Your task to perform on an android device: Search for seafood restaurants on Google Maps Image 0: 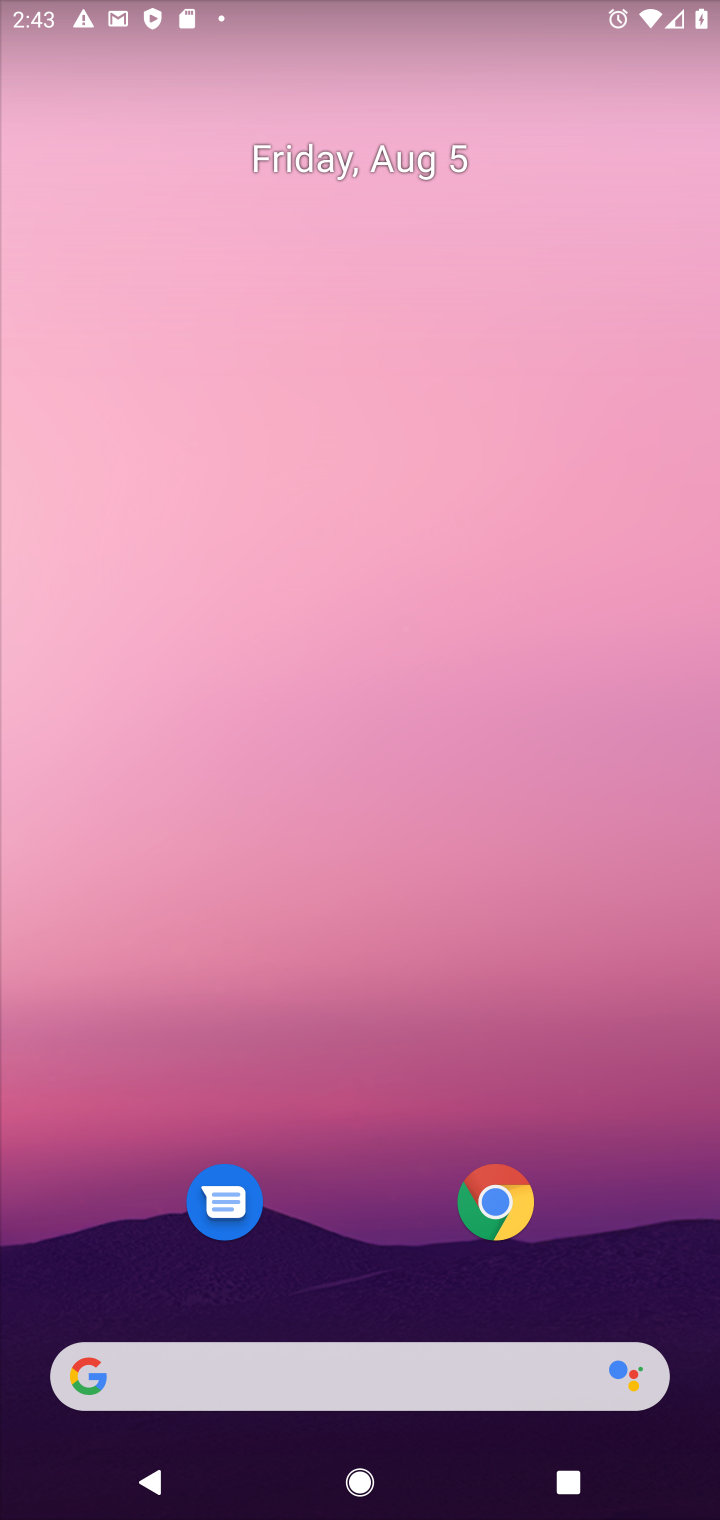
Step 0: drag from (342, 1212) to (318, 9)
Your task to perform on an android device: Search for seafood restaurants on Google Maps Image 1: 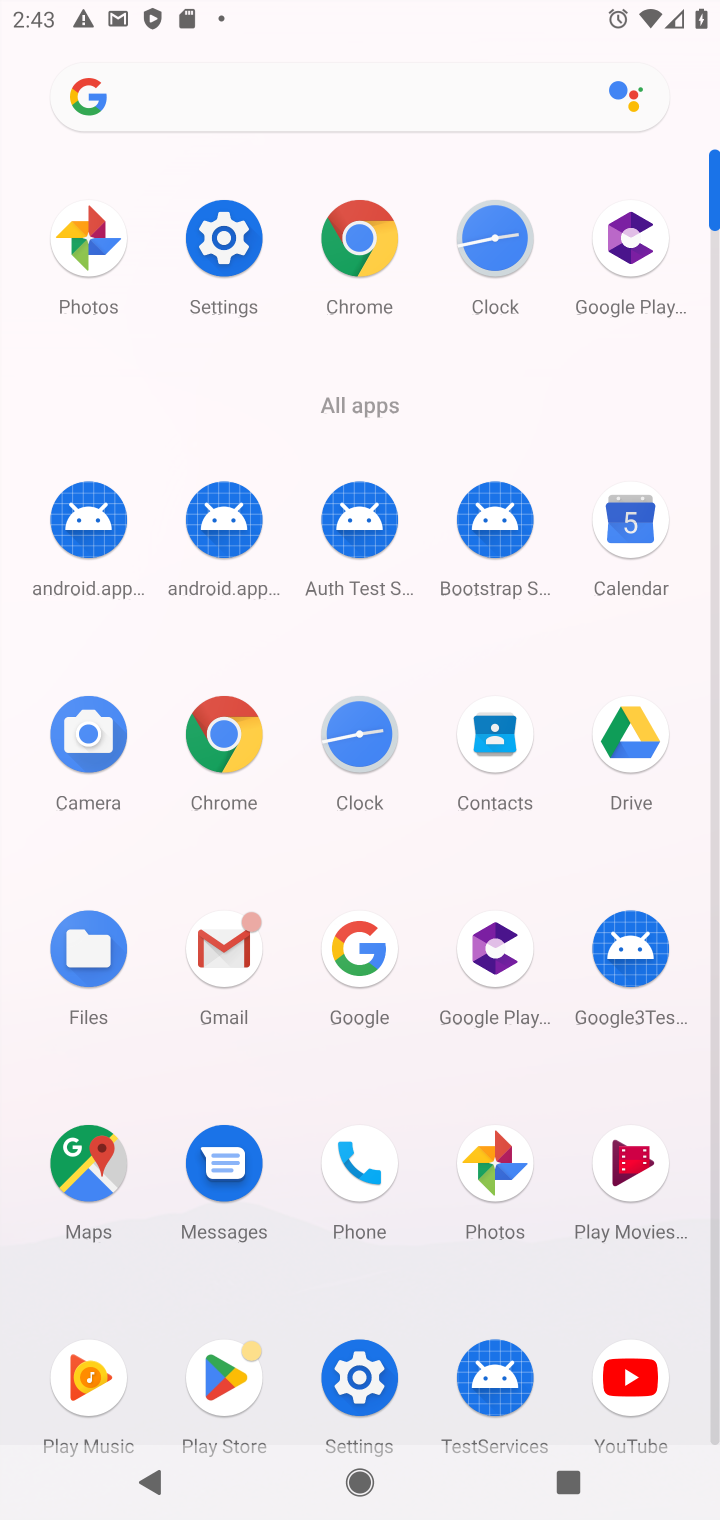
Step 1: click (77, 1200)
Your task to perform on an android device: Search for seafood restaurants on Google Maps Image 2: 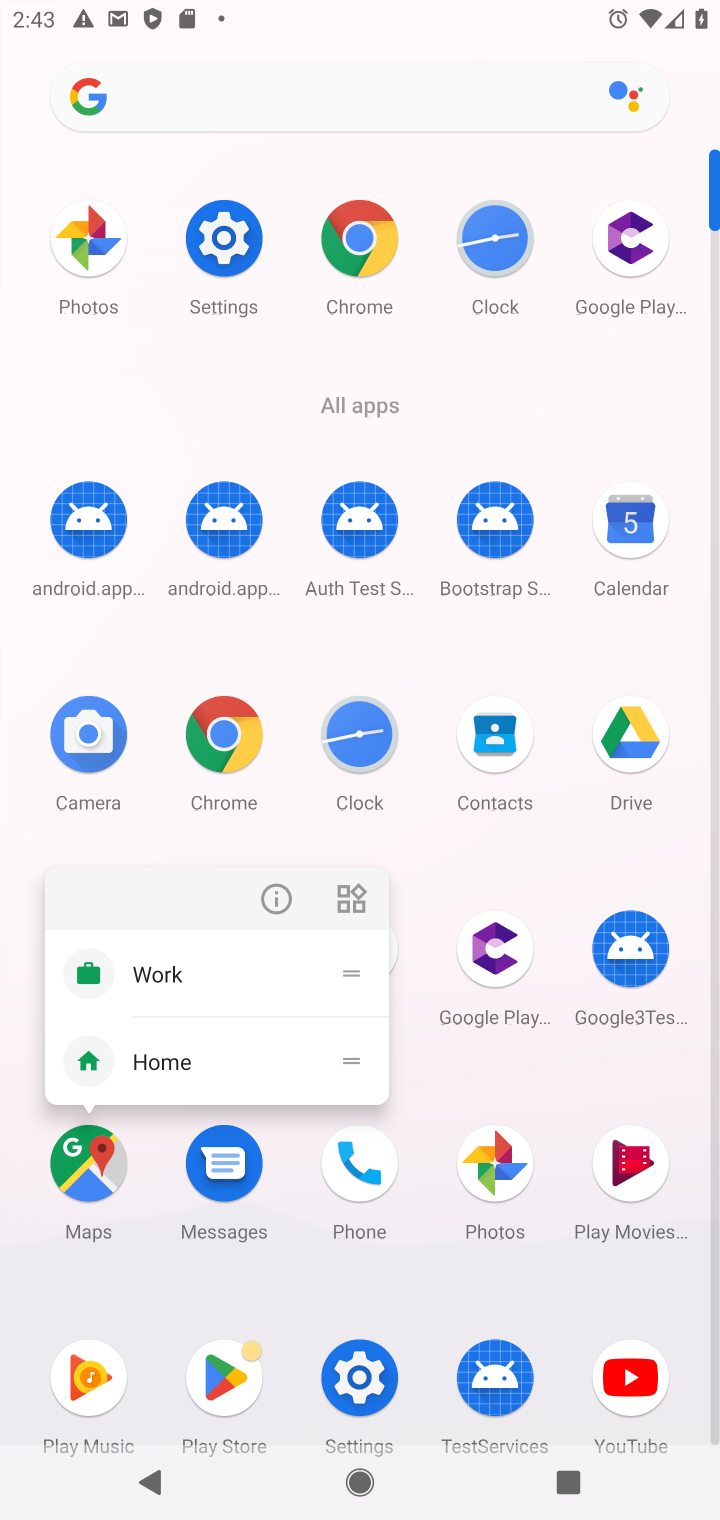
Step 2: click (85, 1162)
Your task to perform on an android device: Search for seafood restaurants on Google Maps Image 3: 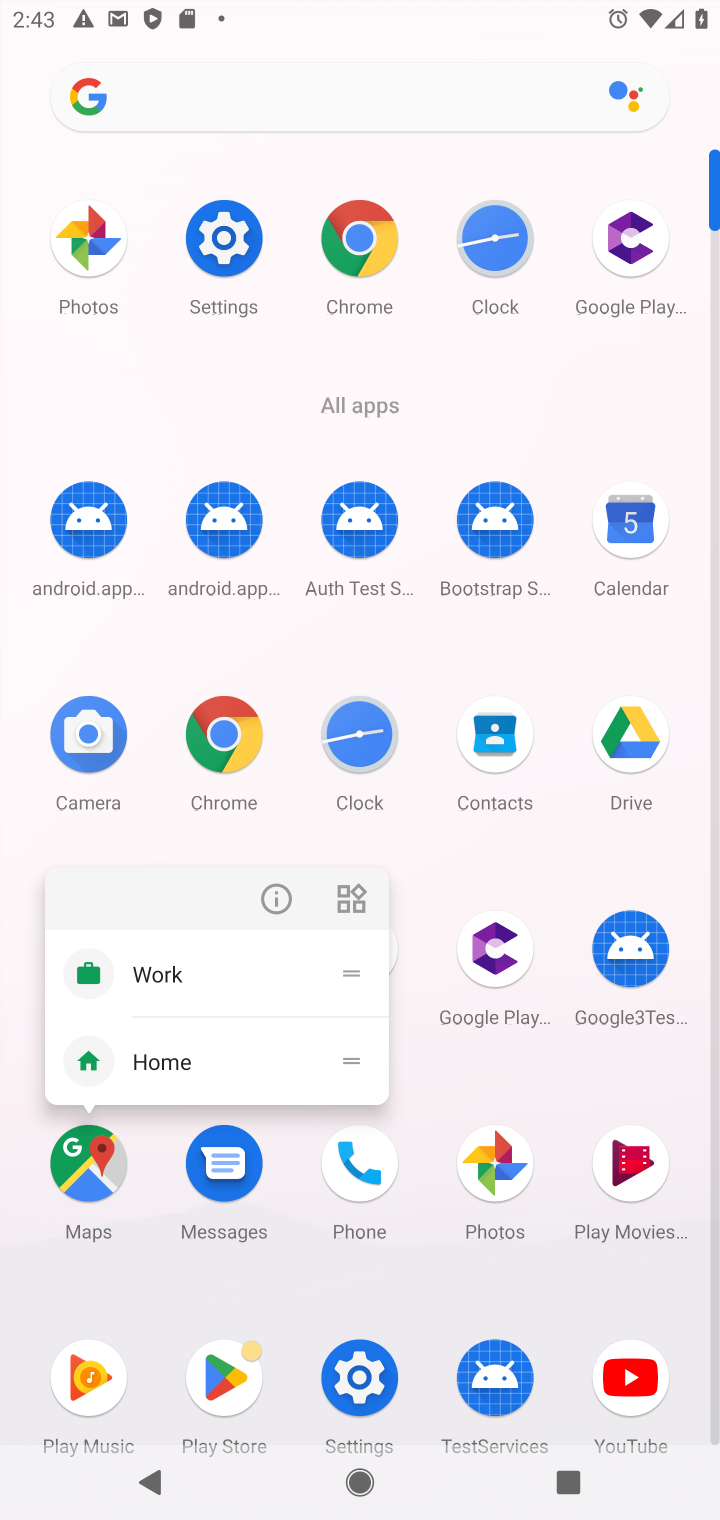
Step 3: click (85, 1162)
Your task to perform on an android device: Search for seafood restaurants on Google Maps Image 4: 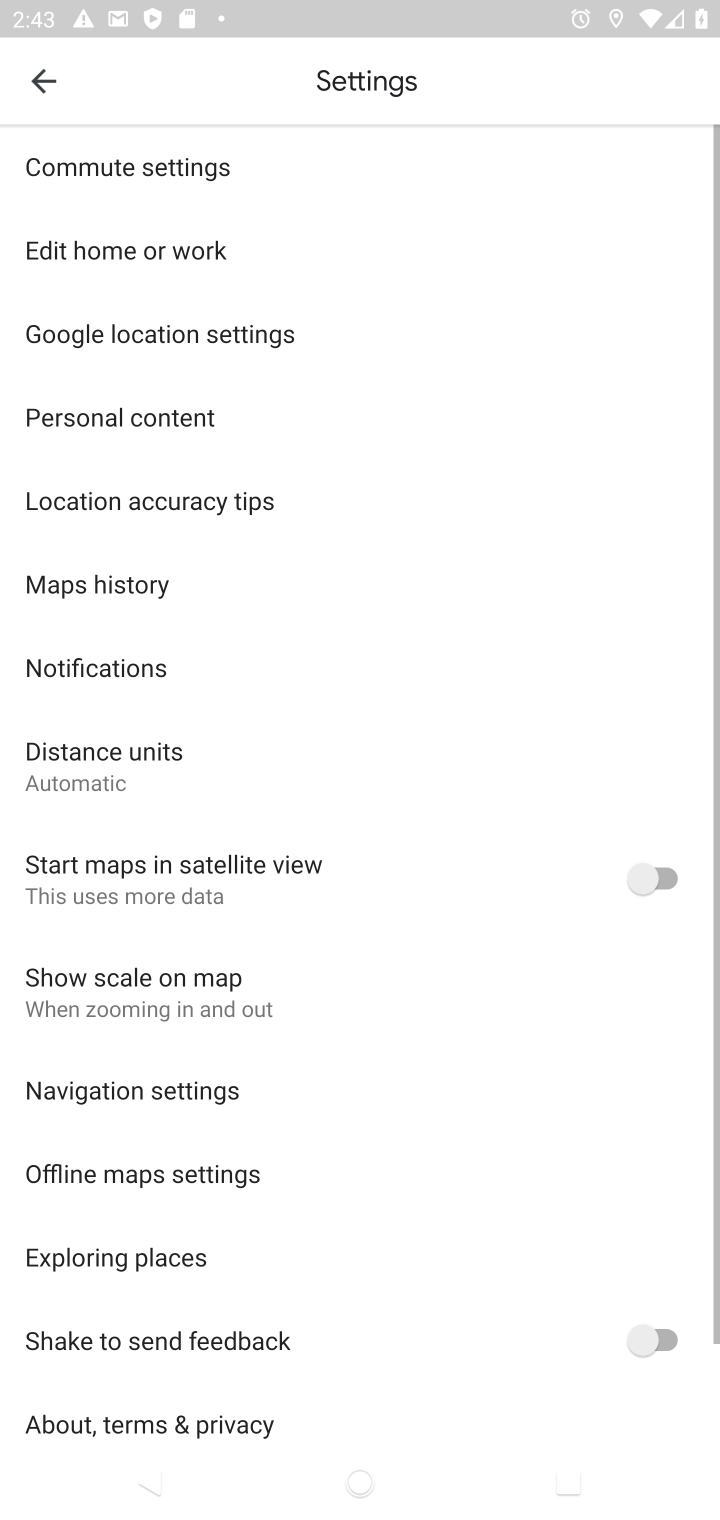
Step 4: click (105, 90)
Your task to perform on an android device: Search for seafood restaurants on Google Maps Image 5: 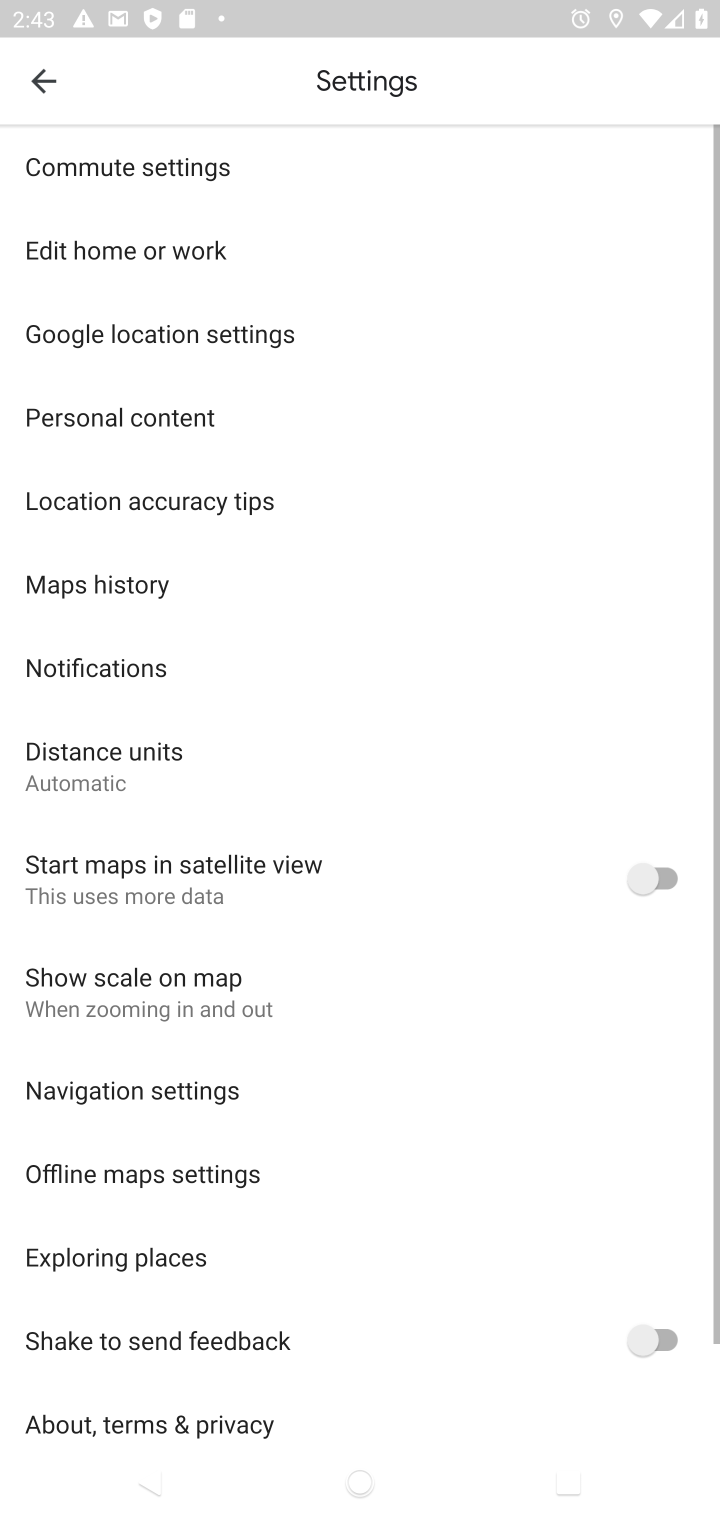
Step 5: click (46, 82)
Your task to perform on an android device: Search for seafood restaurants on Google Maps Image 6: 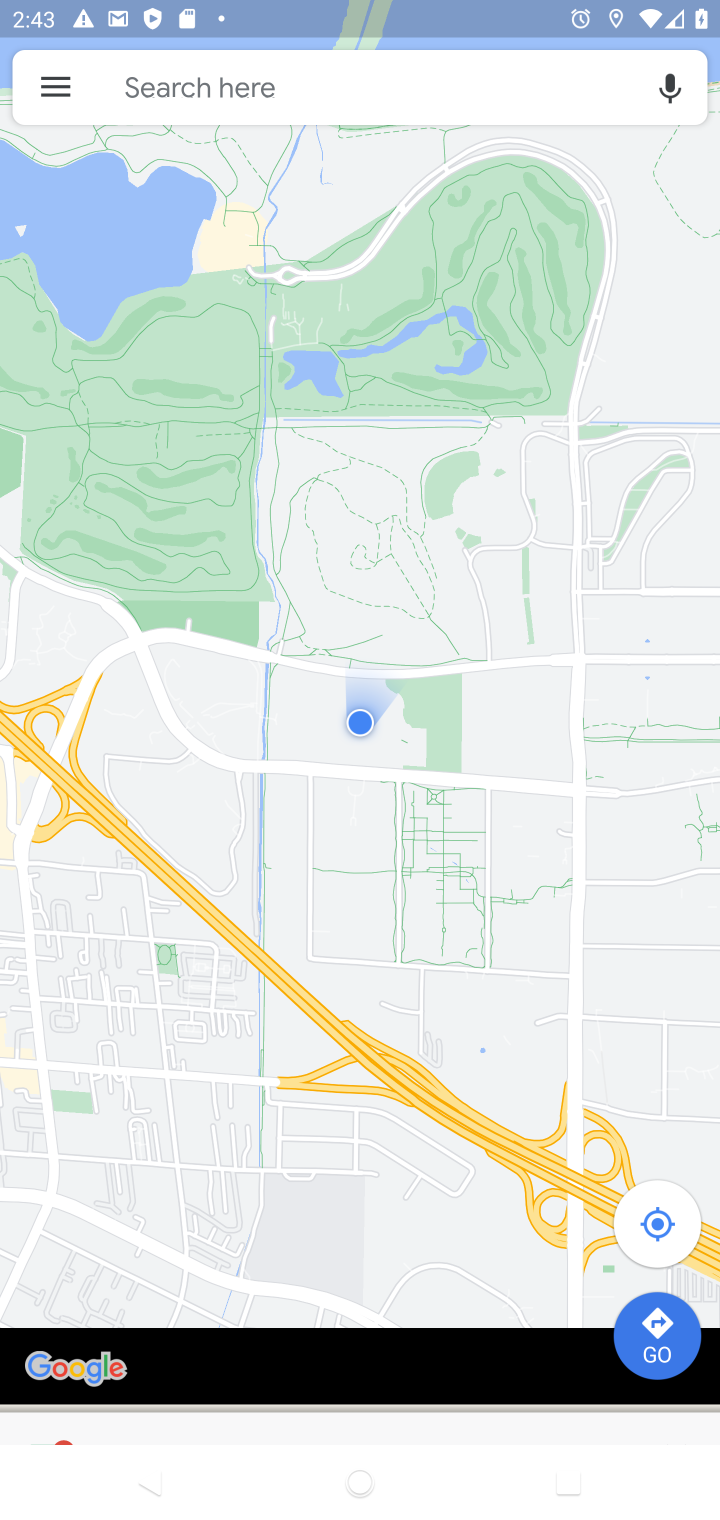
Step 6: click (209, 97)
Your task to perform on an android device: Search for seafood restaurants on Google Maps Image 7: 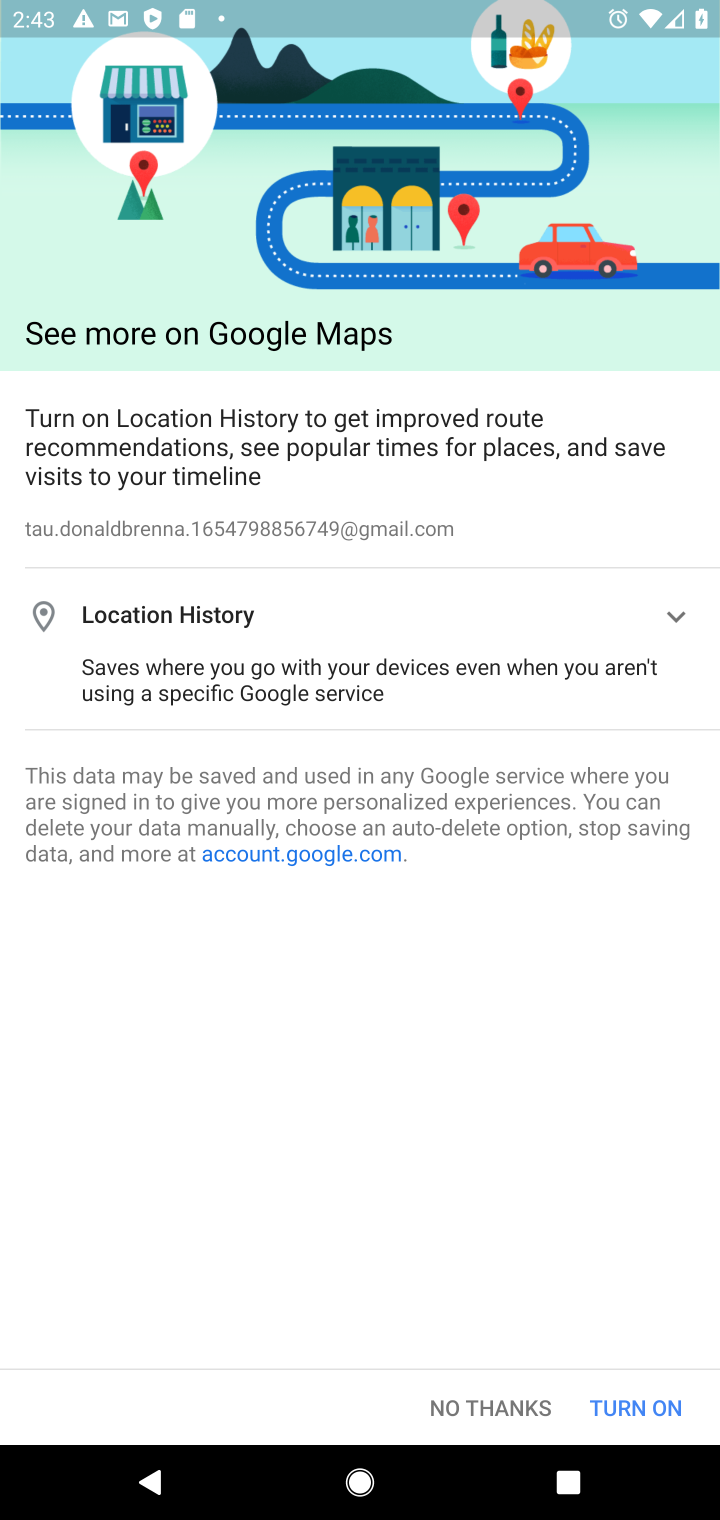
Step 7: click (626, 1391)
Your task to perform on an android device: Search for seafood restaurants on Google Maps Image 8: 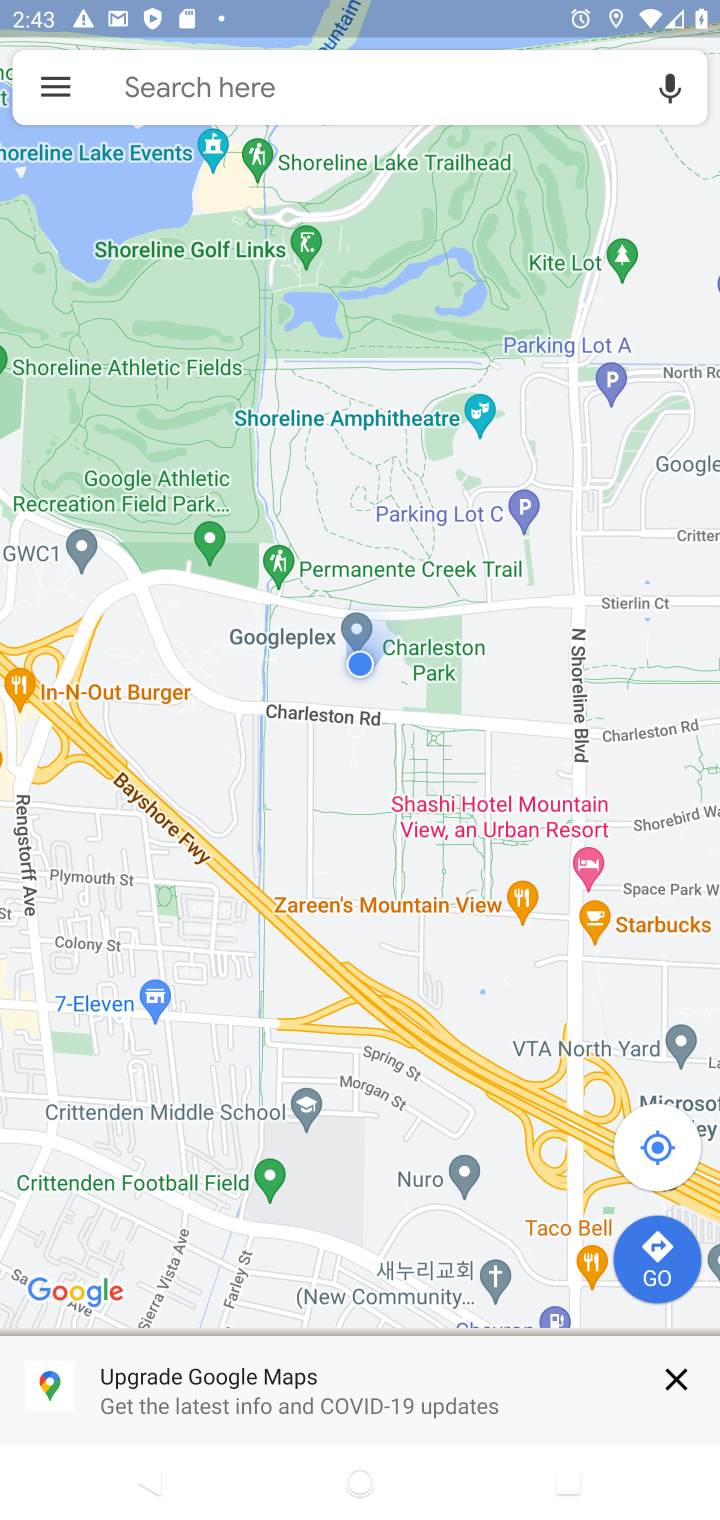
Step 8: click (242, 83)
Your task to perform on an android device: Search for seafood restaurants on Google Maps Image 9: 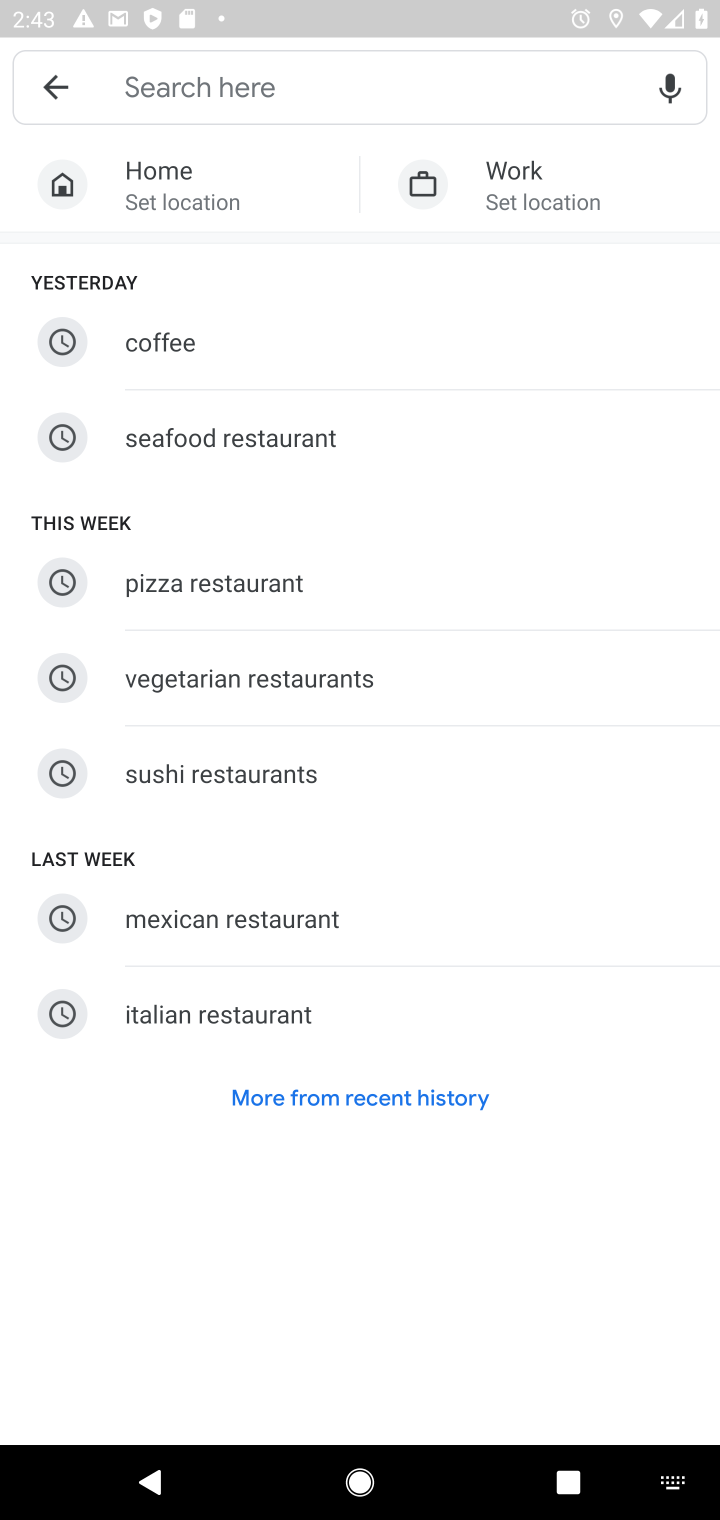
Step 9: click (162, 428)
Your task to perform on an android device: Search for seafood restaurants on Google Maps Image 10: 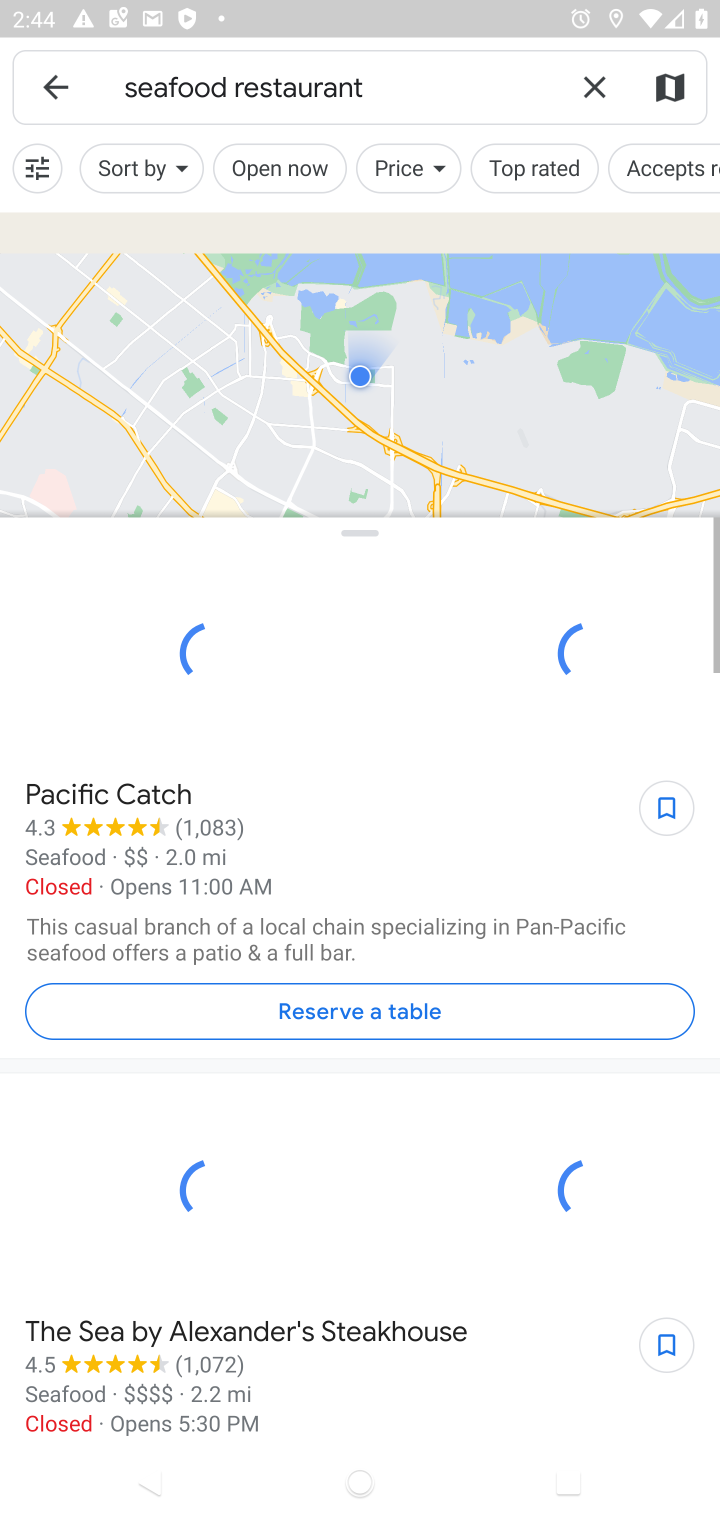
Step 10: task complete